Your task to perform on an android device: all mails in gmail Image 0: 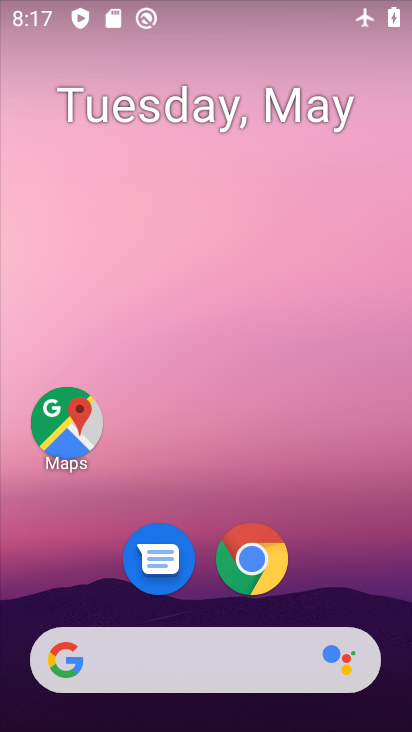
Step 0: drag from (198, 591) to (216, 149)
Your task to perform on an android device: all mails in gmail Image 1: 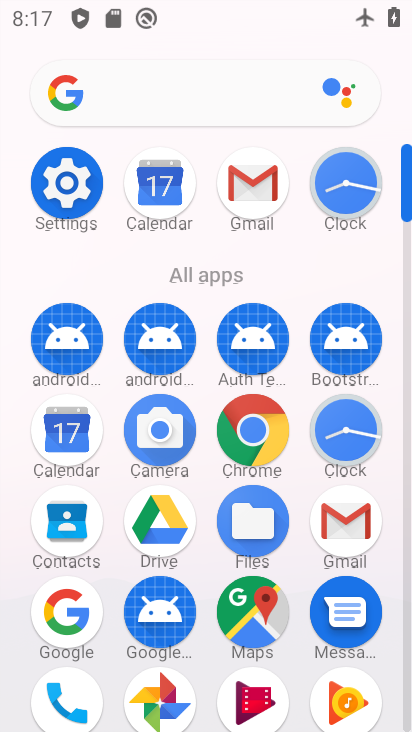
Step 1: click (231, 180)
Your task to perform on an android device: all mails in gmail Image 2: 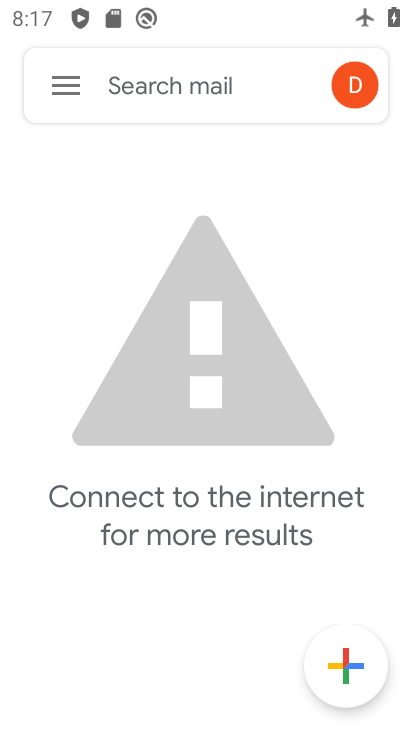
Step 2: click (67, 77)
Your task to perform on an android device: all mails in gmail Image 3: 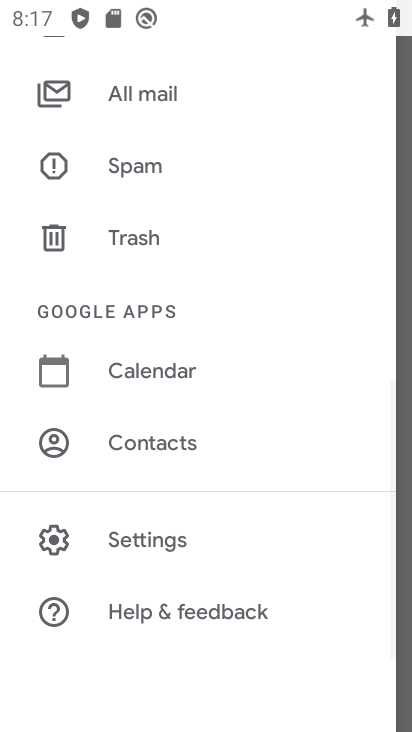
Step 3: click (161, 83)
Your task to perform on an android device: all mails in gmail Image 4: 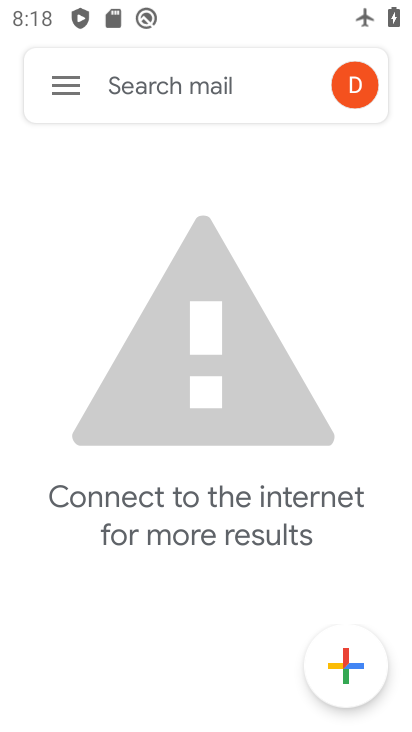
Step 4: task complete